Your task to perform on an android device: Open Chrome and go to the settings page Image 0: 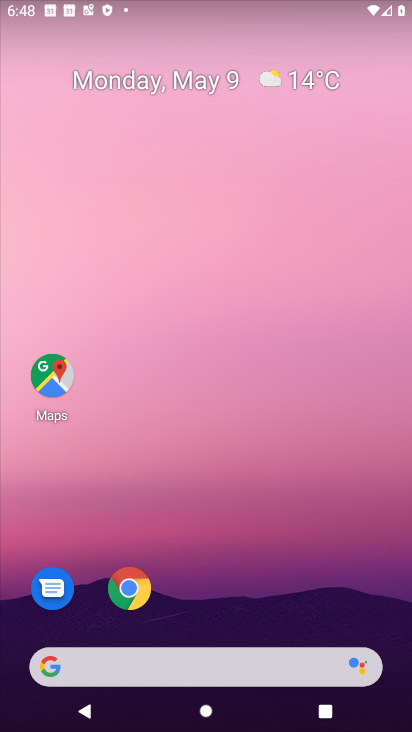
Step 0: drag from (356, 617) to (322, 26)
Your task to perform on an android device: Open Chrome and go to the settings page Image 1: 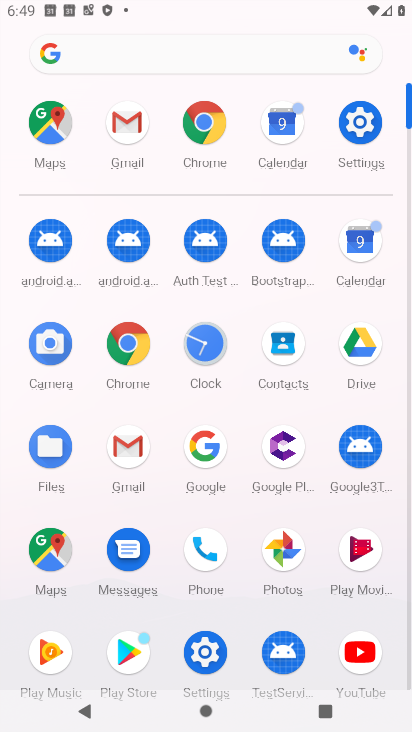
Step 1: click (133, 336)
Your task to perform on an android device: Open Chrome and go to the settings page Image 2: 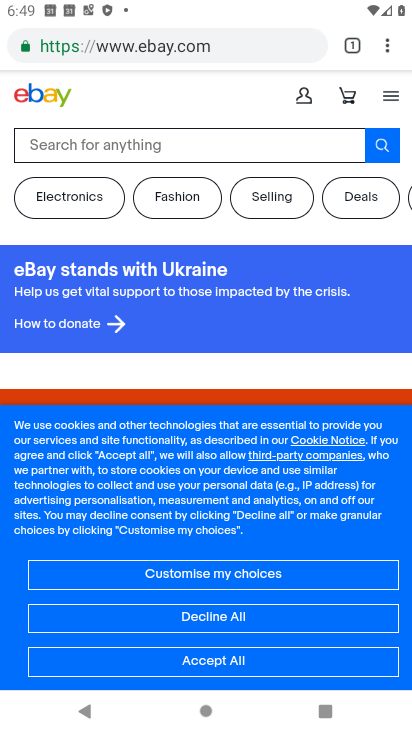
Step 2: press back button
Your task to perform on an android device: Open Chrome and go to the settings page Image 3: 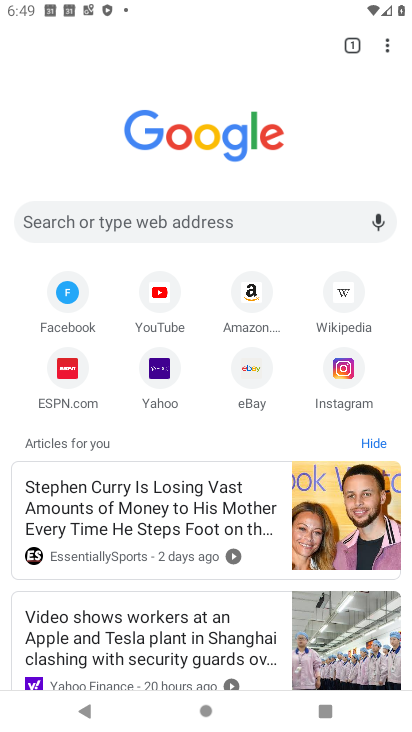
Step 3: click (381, 39)
Your task to perform on an android device: Open Chrome and go to the settings page Image 4: 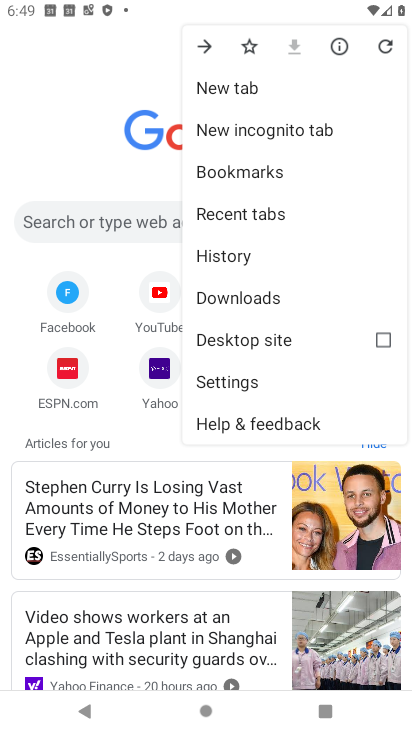
Step 4: click (274, 376)
Your task to perform on an android device: Open Chrome and go to the settings page Image 5: 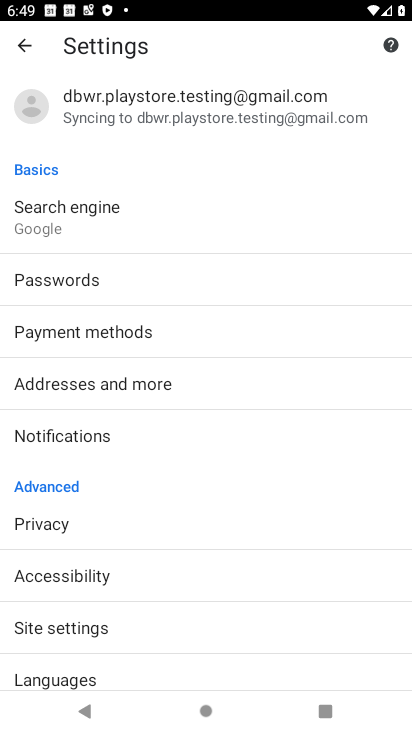
Step 5: task complete